Your task to perform on an android device: Open Android settings Image 0: 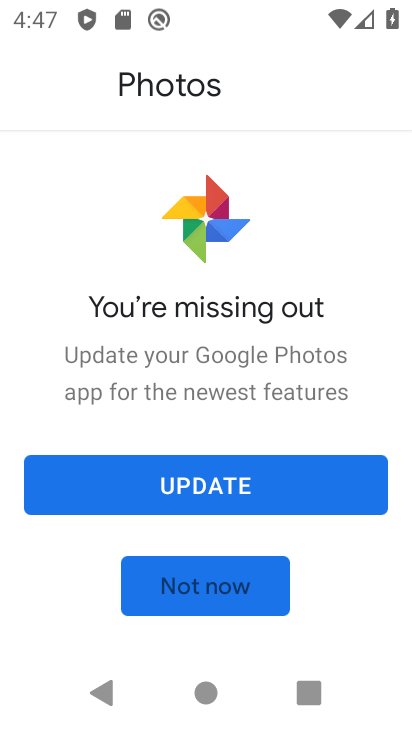
Step 0: press home button
Your task to perform on an android device: Open Android settings Image 1: 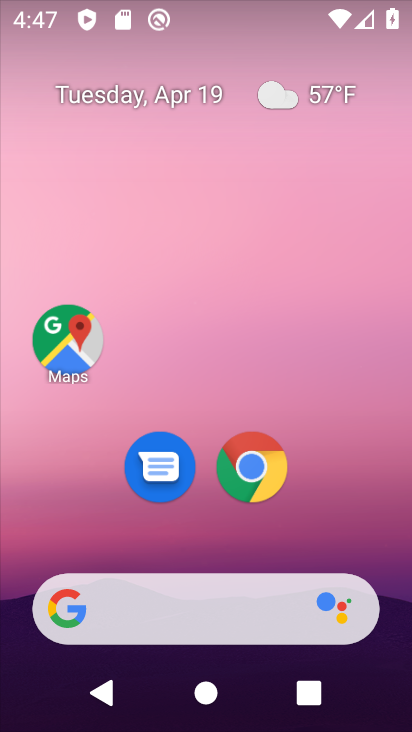
Step 1: drag from (193, 625) to (165, 116)
Your task to perform on an android device: Open Android settings Image 2: 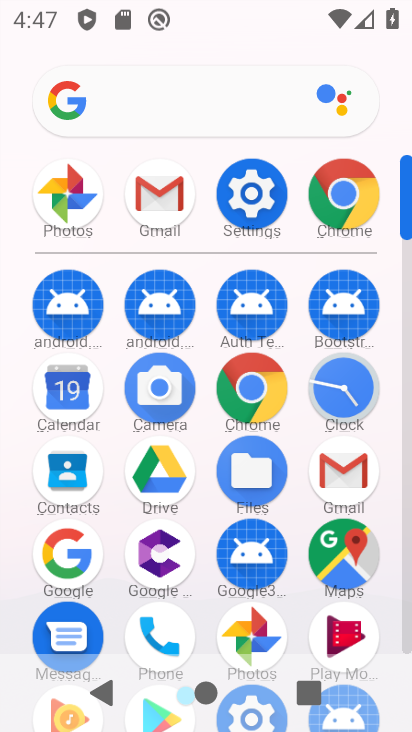
Step 2: click (231, 189)
Your task to perform on an android device: Open Android settings Image 3: 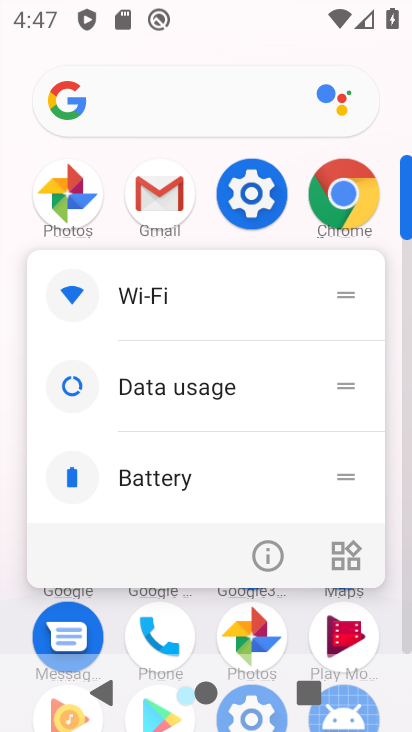
Step 3: click (260, 212)
Your task to perform on an android device: Open Android settings Image 4: 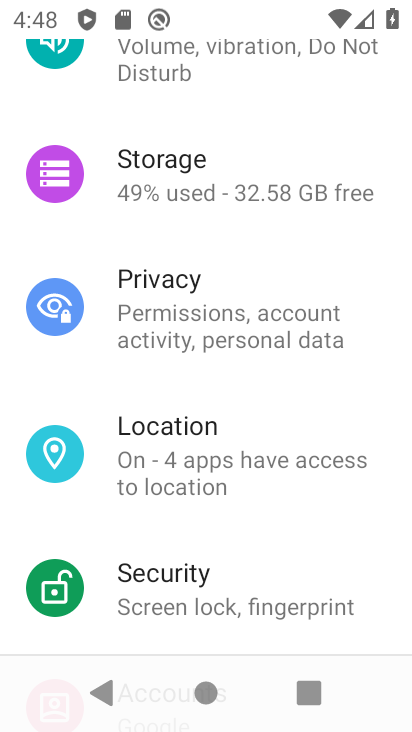
Step 4: drag from (171, 538) to (103, 6)
Your task to perform on an android device: Open Android settings Image 5: 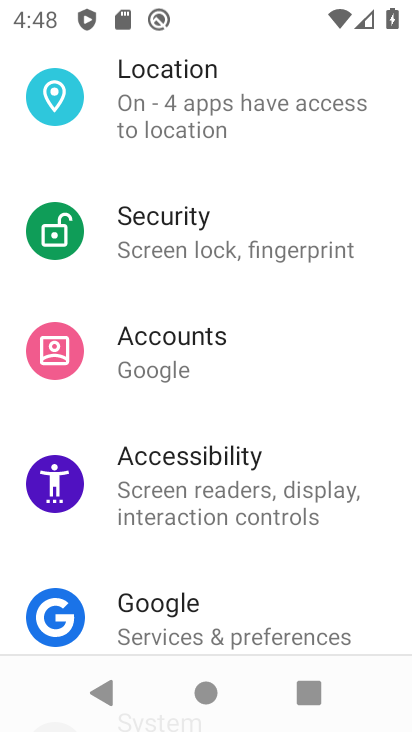
Step 5: drag from (158, 531) to (138, 87)
Your task to perform on an android device: Open Android settings Image 6: 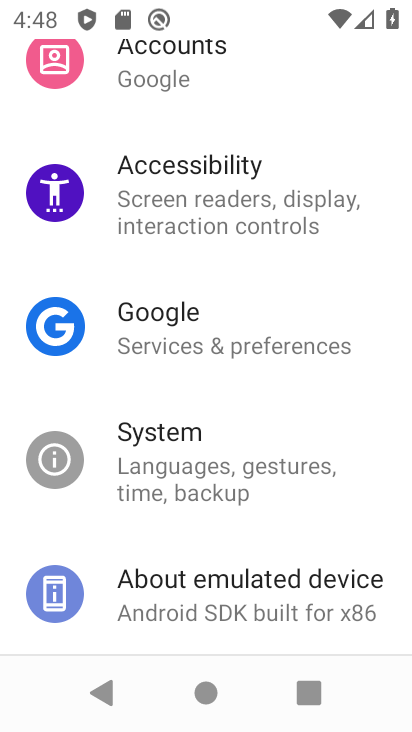
Step 6: drag from (197, 400) to (218, 0)
Your task to perform on an android device: Open Android settings Image 7: 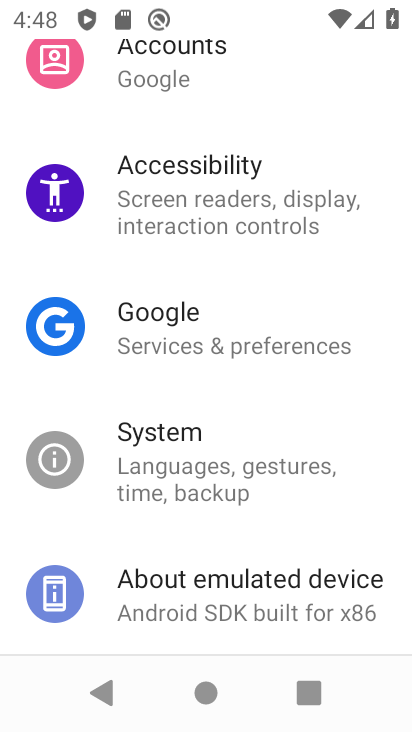
Step 7: click (229, 624)
Your task to perform on an android device: Open Android settings Image 8: 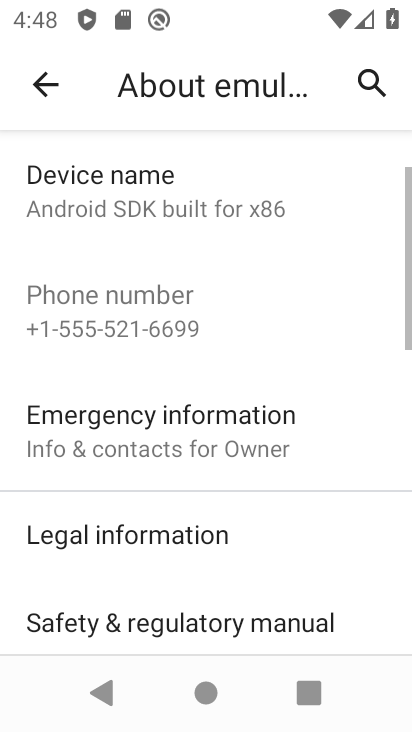
Step 8: drag from (218, 609) to (212, 277)
Your task to perform on an android device: Open Android settings Image 9: 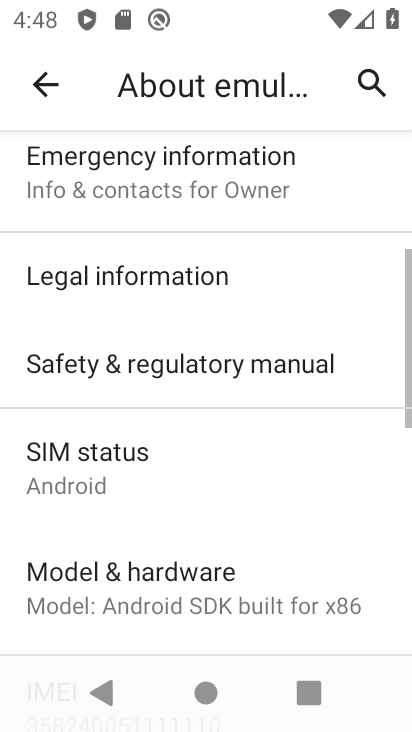
Step 9: drag from (195, 541) to (187, 377)
Your task to perform on an android device: Open Android settings Image 10: 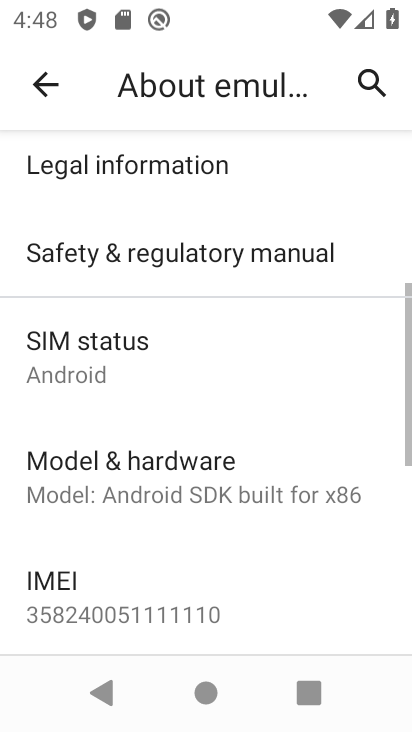
Step 10: drag from (180, 307) to (192, 210)
Your task to perform on an android device: Open Android settings Image 11: 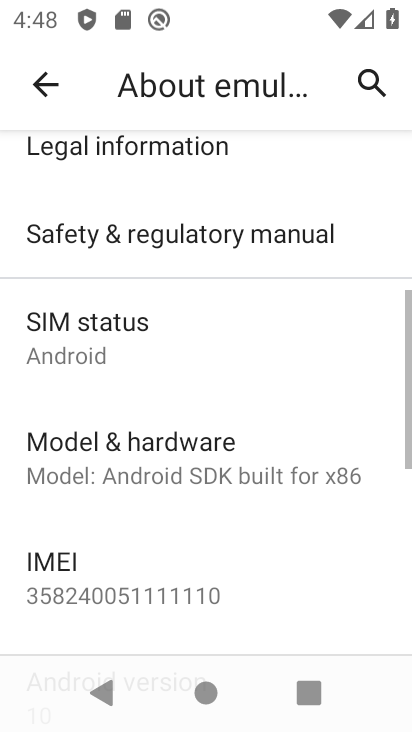
Step 11: drag from (185, 583) to (121, 177)
Your task to perform on an android device: Open Android settings Image 12: 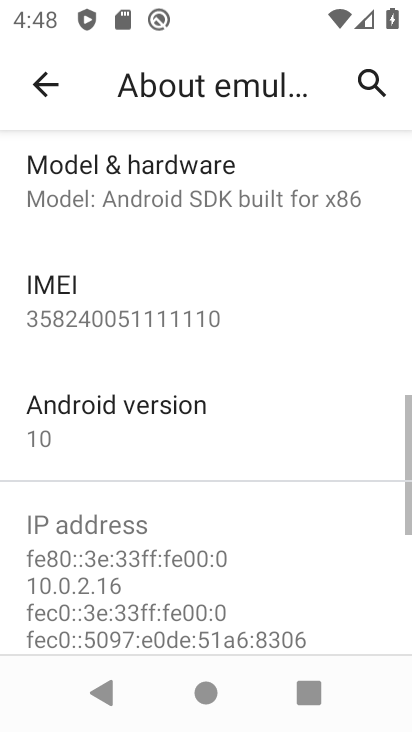
Step 12: click (139, 430)
Your task to perform on an android device: Open Android settings Image 13: 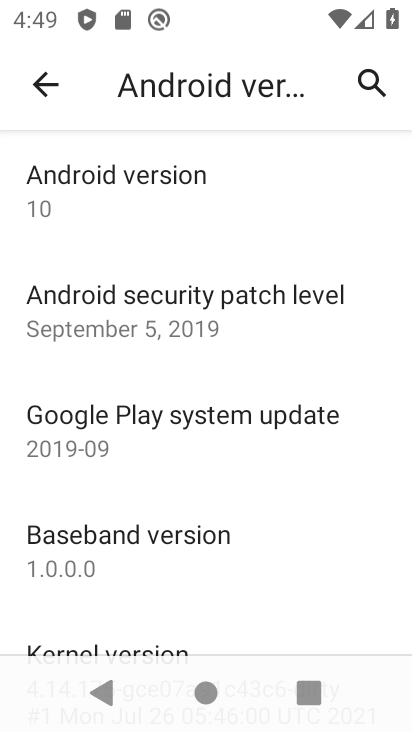
Step 13: task complete